Your task to perform on an android device: turn on showing notifications on the lock screen Image 0: 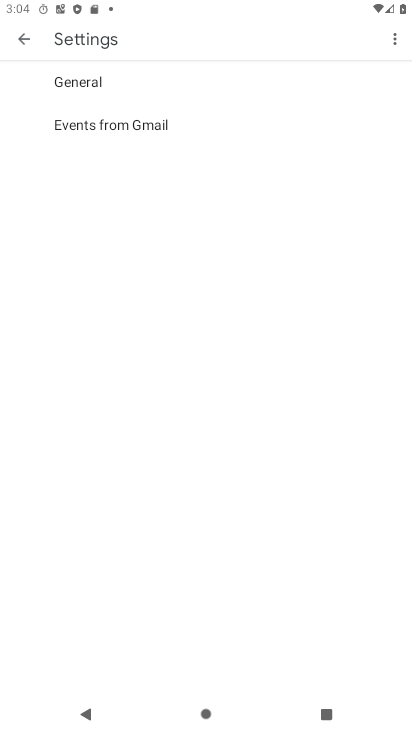
Step 0: press home button
Your task to perform on an android device: turn on showing notifications on the lock screen Image 1: 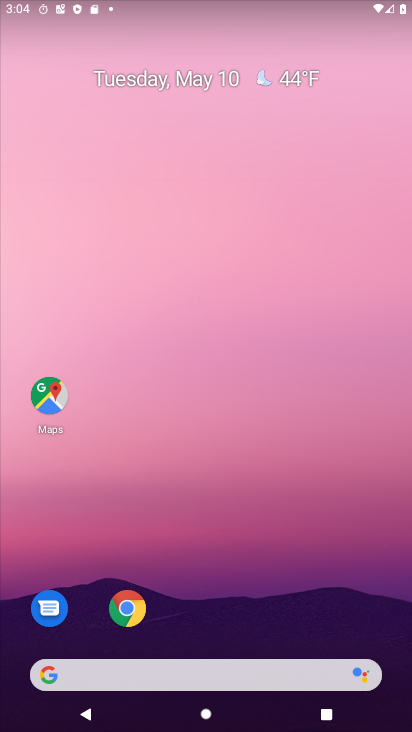
Step 1: drag from (305, 627) to (341, 25)
Your task to perform on an android device: turn on showing notifications on the lock screen Image 2: 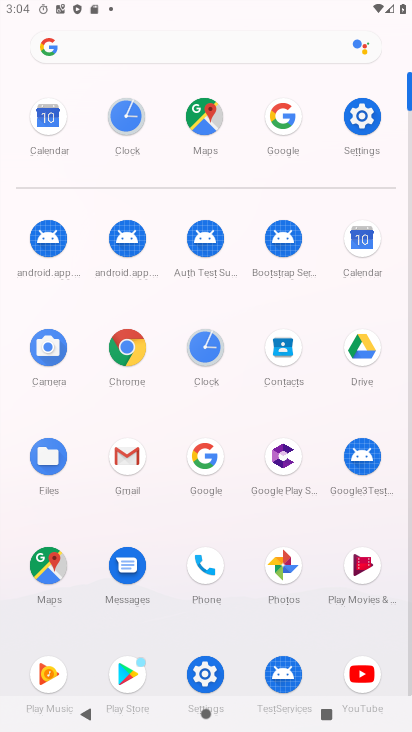
Step 2: click (375, 107)
Your task to perform on an android device: turn on showing notifications on the lock screen Image 3: 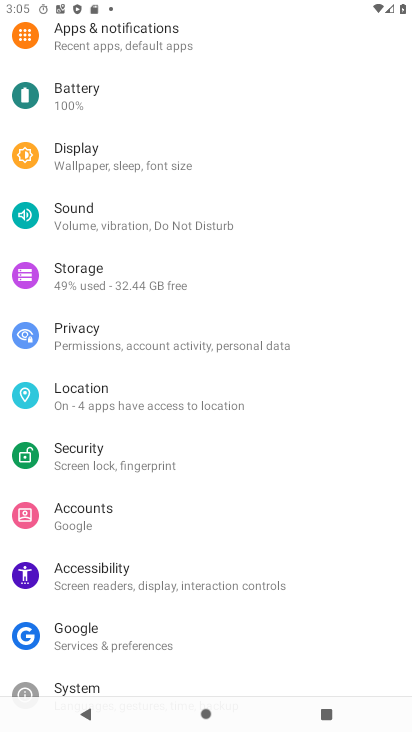
Step 3: click (109, 33)
Your task to perform on an android device: turn on showing notifications on the lock screen Image 4: 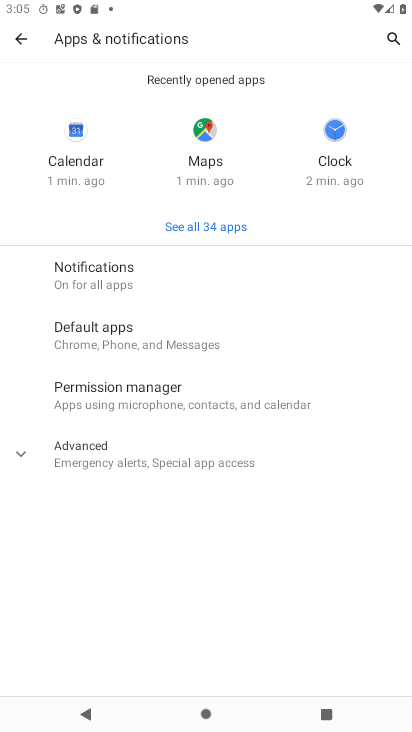
Step 4: click (70, 277)
Your task to perform on an android device: turn on showing notifications on the lock screen Image 5: 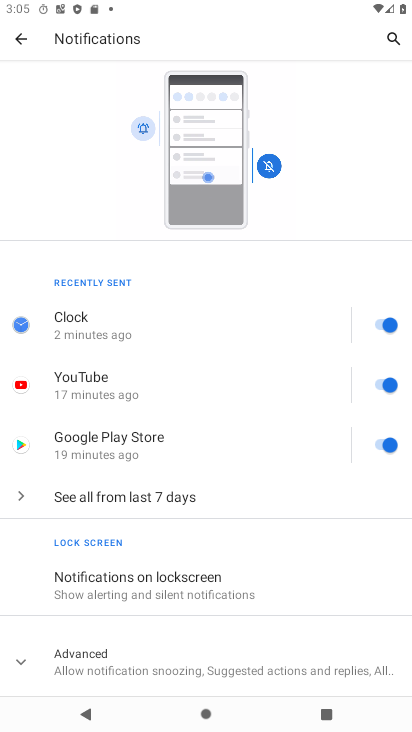
Step 5: click (80, 587)
Your task to perform on an android device: turn on showing notifications on the lock screen Image 6: 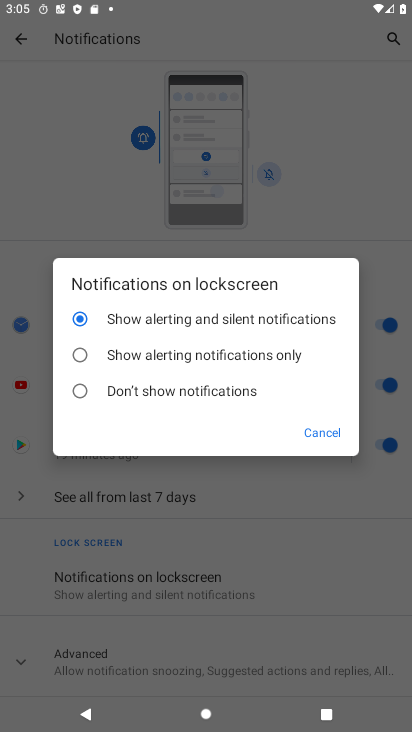
Step 6: task complete